Your task to perform on an android device: Open accessibility settings Image 0: 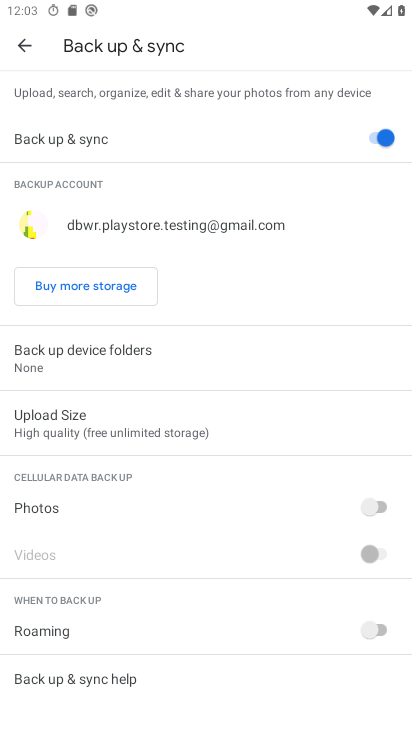
Step 0: press home button
Your task to perform on an android device: Open accessibility settings Image 1: 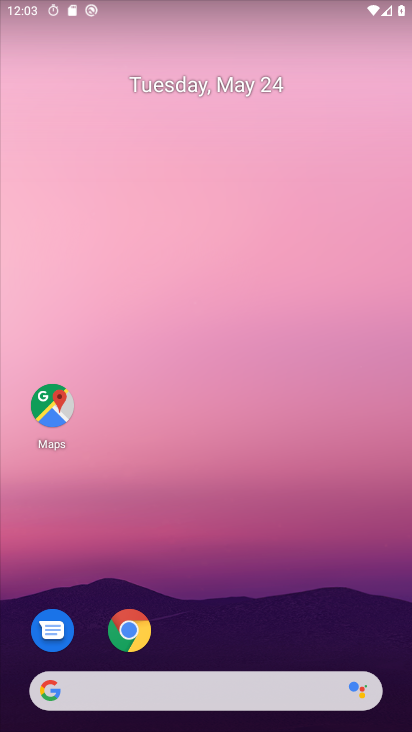
Step 1: drag from (248, 613) to (286, 231)
Your task to perform on an android device: Open accessibility settings Image 2: 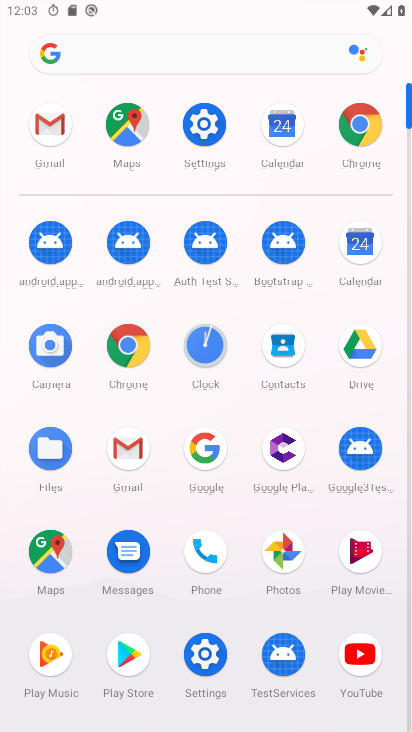
Step 2: click (206, 653)
Your task to perform on an android device: Open accessibility settings Image 3: 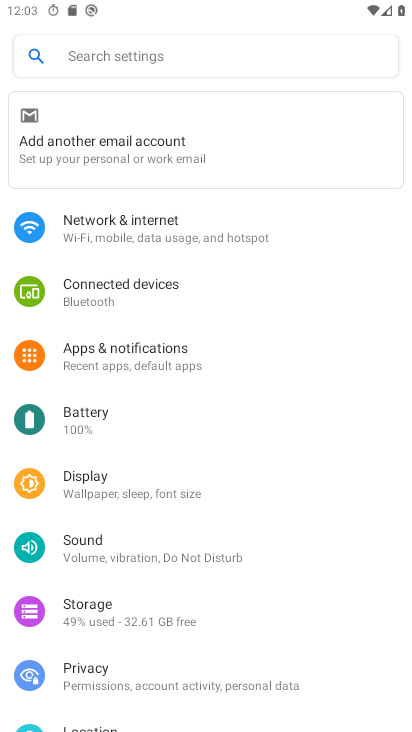
Step 3: drag from (157, 630) to (196, 402)
Your task to perform on an android device: Open accessibility settings Image 4: 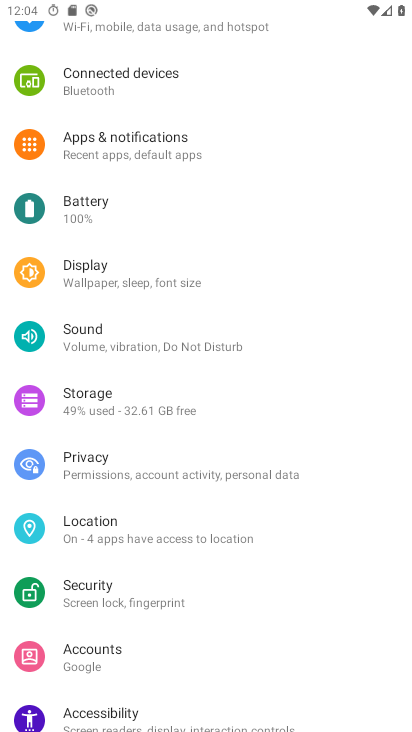
Step 4: drag from (143, 635) to (163, 475)
Your task to perform on an android device: Open accessibility settings Image 5: 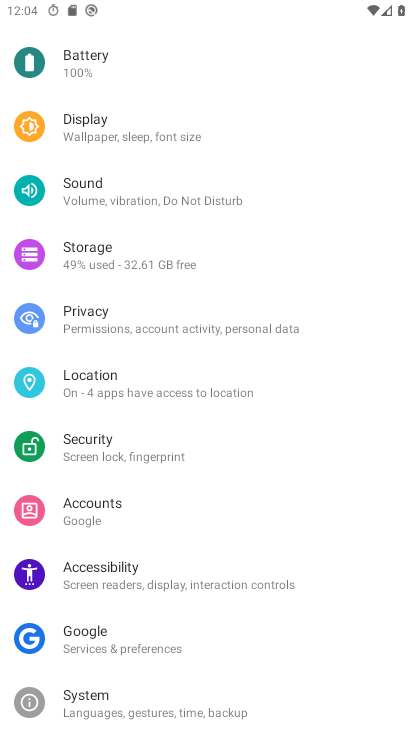
Step 5: click (143, 577)
Your task to perform on an android device: Open accessibility settings Image 6: 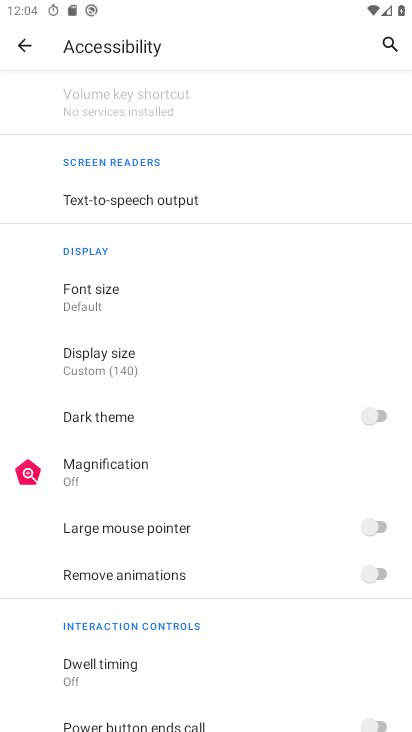
Step 6: task complete